Your task to perform on an android device: Is it going to rain today? Image 0: 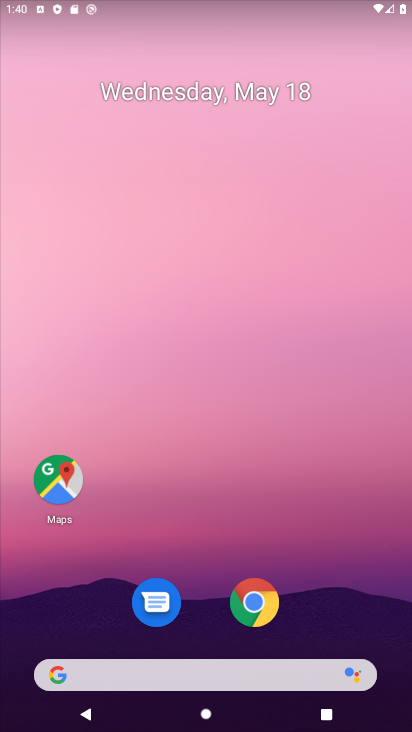
Step 0: click (125, 679)
Your task to perform on an android device: Is it going to rain today? Image 1: 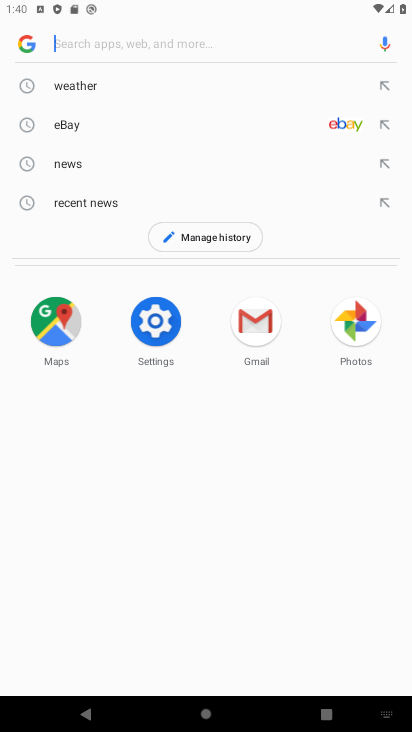
Step 1: type "Is it going to rain today?"
Your task to perform on an android device: Is it going to rain today? Image 2: 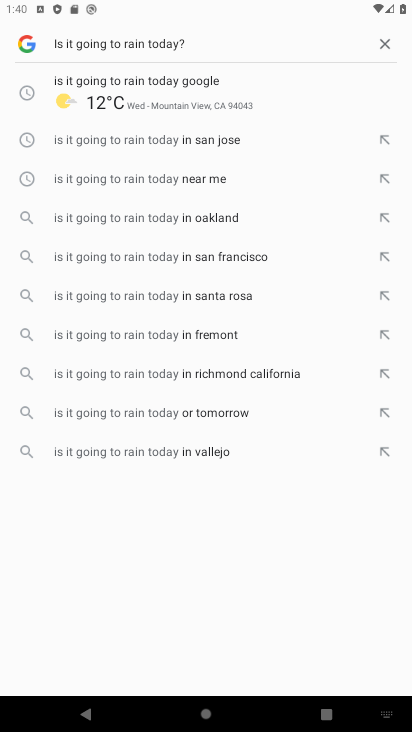
Step 2: click (275, 97)
Your task to perform on an android device: Is it going to rain today? Image 3: 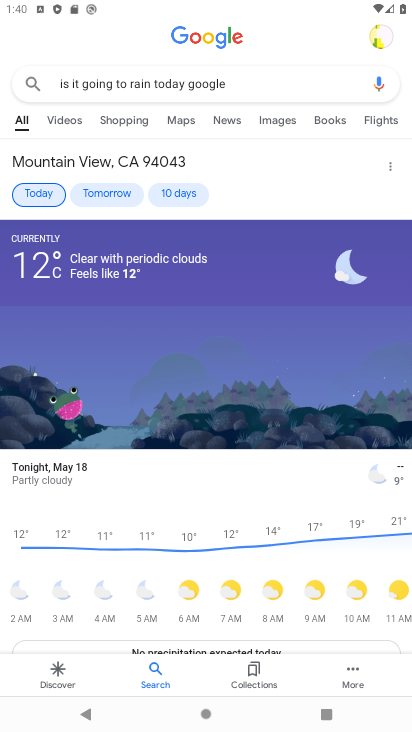
Step 3: task complete